Your task to perform on an android device: Go to Amazon Image 0: 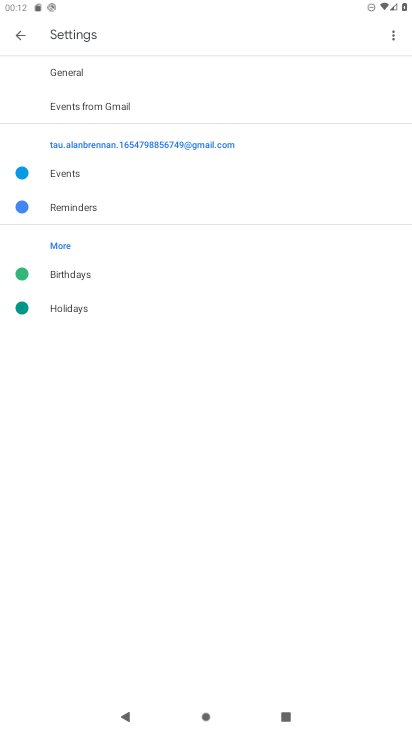
Step 0: press home button
Your task to perform on an android device: Go to Amazon Image 1: 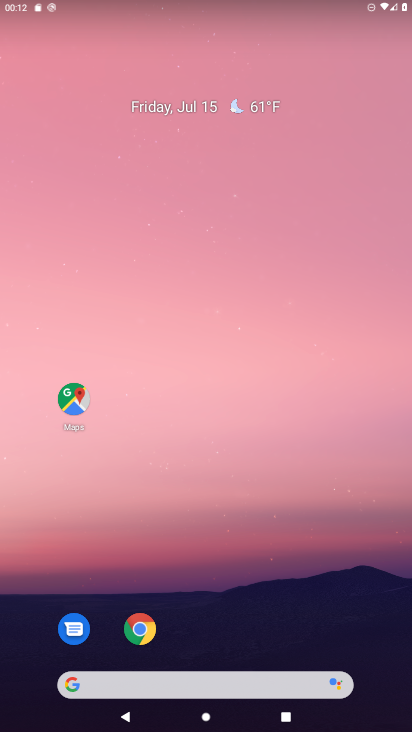
Step 1: click (138, 616)
Your task to perform on an android device: Go to Amazon Image 2: 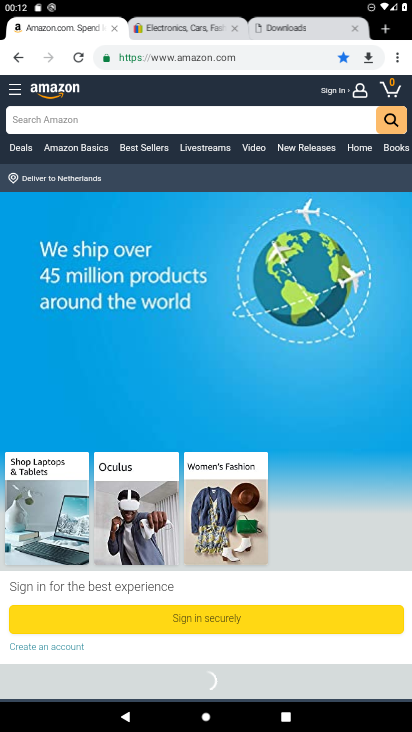
Step 2: task complete